Your task to perform on an android device: open chrome and create a bookmark for the current page Image 0: 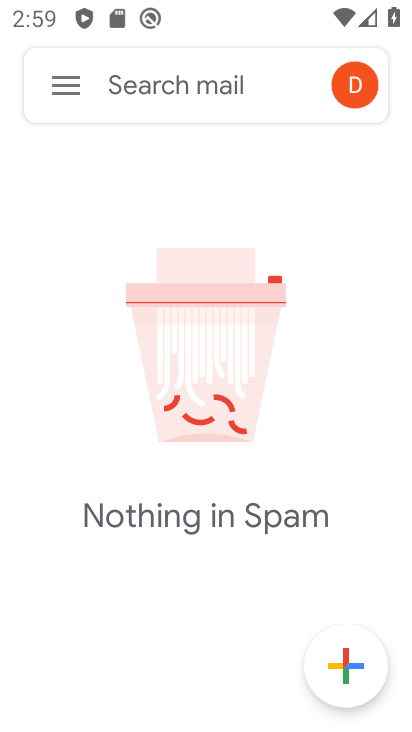
Step 0: press back button
Your task to perform on an android device: open chrome and create a bookmark for the current page Image 1: 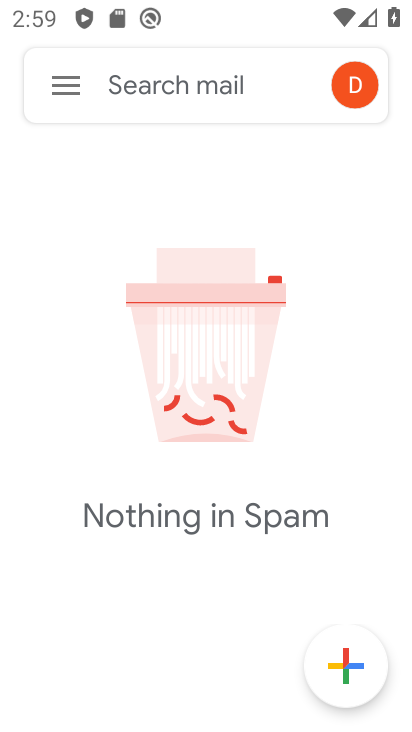
Step 1: press back button
Your task to perform on an android device: open chrome and create a bookmark for the current page Image 2: 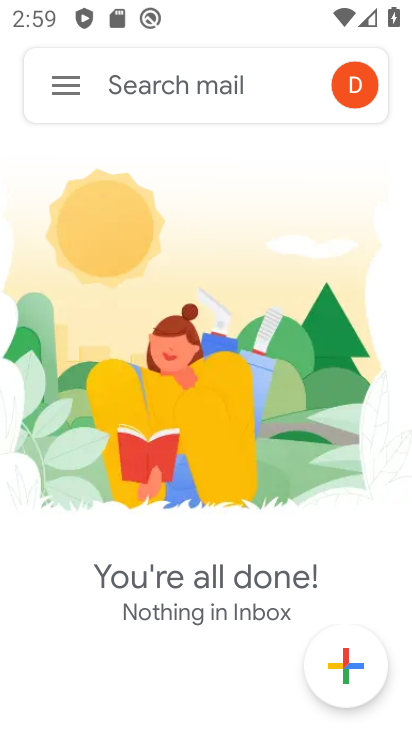
Step 2: press back button
Your task to perform on an android device: open chrome and create a bookmark for the current page Image 3: 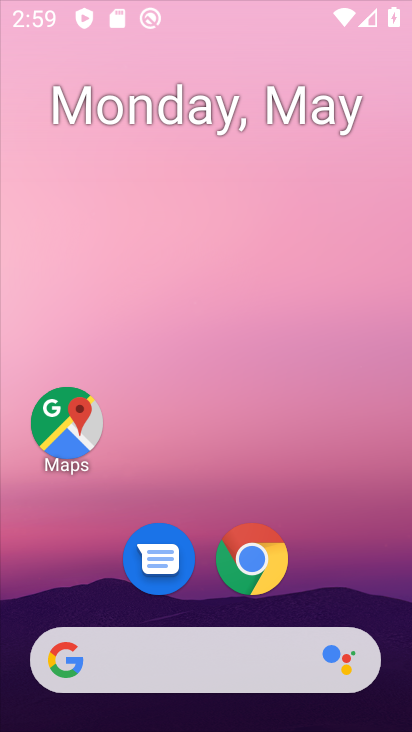
Step 3: press back button
Your task to perform on an android device: open chrome and create a bookmark for the current page Image 4: 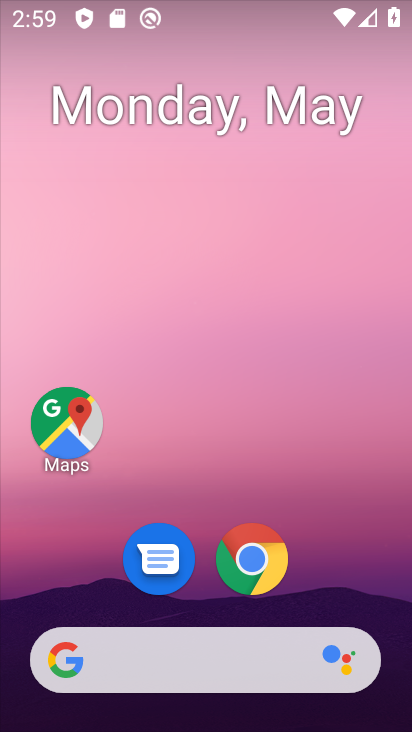
Step 4: drag from (336, 551) to (237, 124)
Your task to perform on an android device: open chrome and create a bookmark for the current page Image 5: 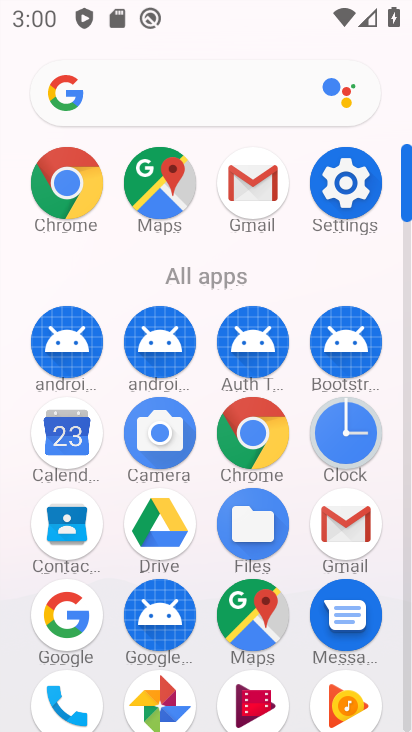
Step 5: click (75, 178)
Your task to perform on an android device: open chrome and create a bookmark for the current page Image 6: 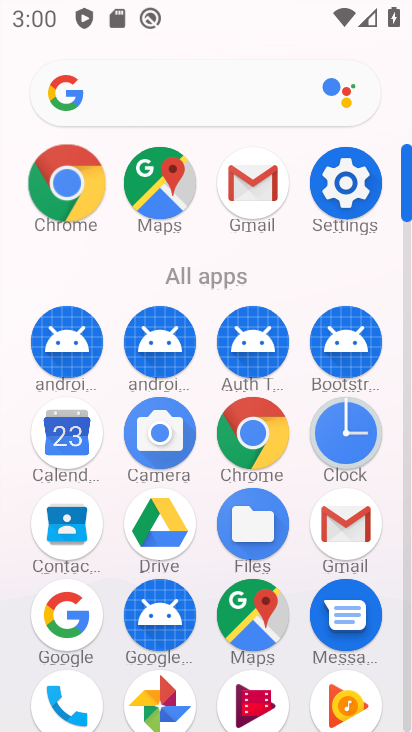
Step 6: click (77, 187)
Your task to perform on an android device: open chrome and create a bookmark for the current page Image 7: 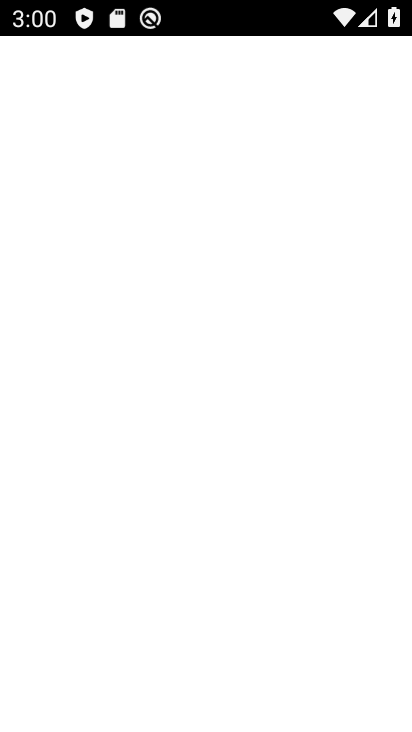
Step 7: click (77, 187)
Your task to perform on an android device: open chrome and create a bookmark for the current page Image 8: 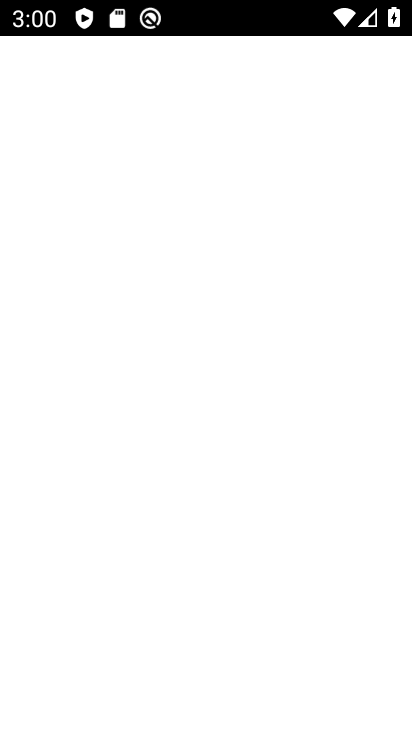
Step 8: click (77, 187)
Your task to perform on an android device: open chrome and create a bookmark for the current page Image 9: 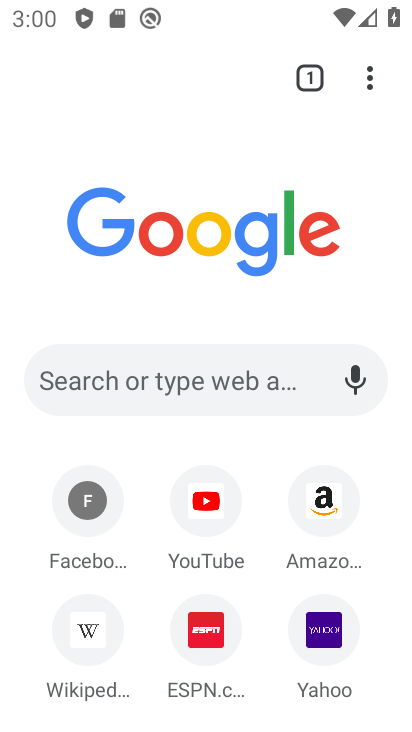
Step 9: click (371, 79)
Your task to perform on an android device: open chrome and create a bookmark for the current page Image 10: 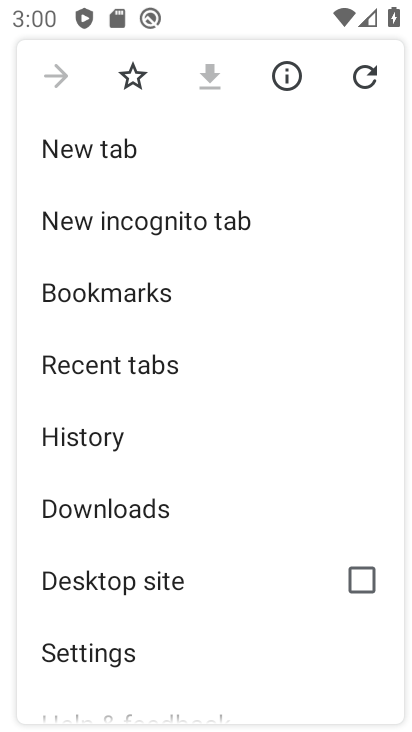
Step 10: click (75, 292)
Your task to perform on an android device: open chrome and create a bookmark for the current page Image 11: 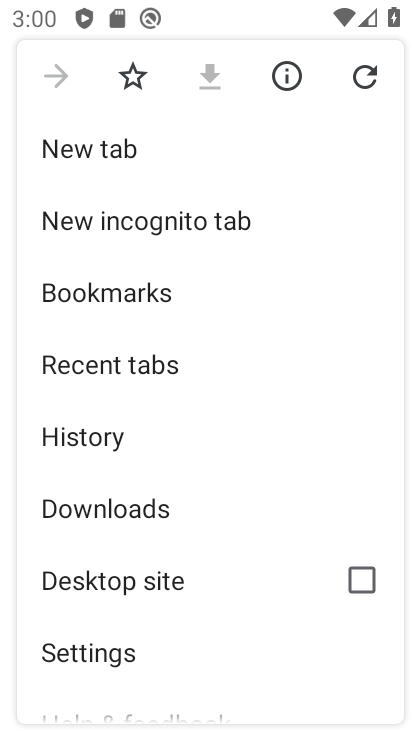
Step 11: click (76, 292)
Your task to perform on an android device: open chrome and create a bookmark for the current page Image 12: 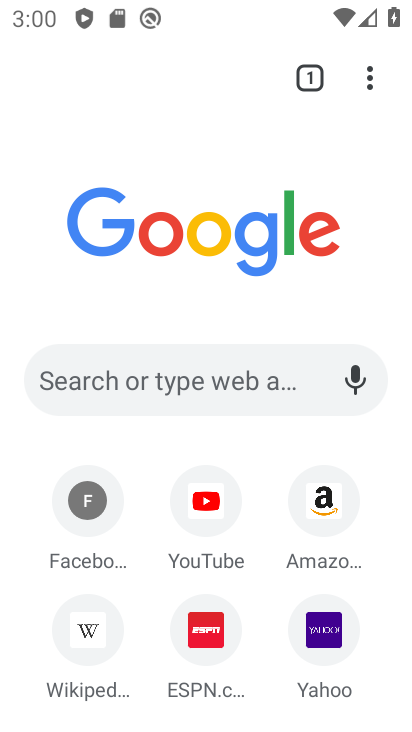
Step 12: click (76, 292)
Your task to perform on an android device: open chrome and create a bookmark for the current page Image 13: 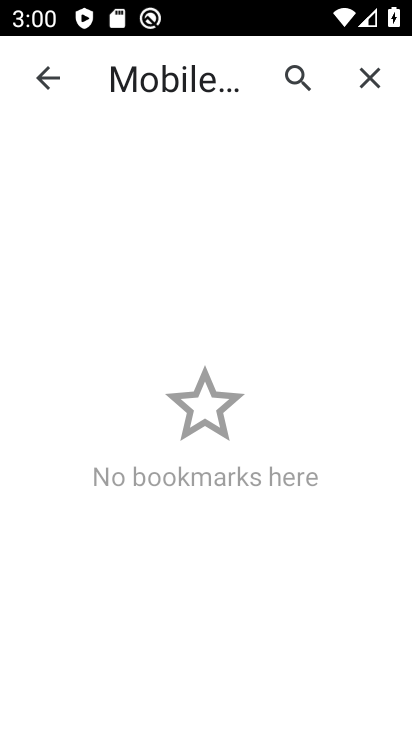
Step 13: click (76, 291)
Your task to perform on an android device: open chrome and create a bookmark for the current page Image 14: 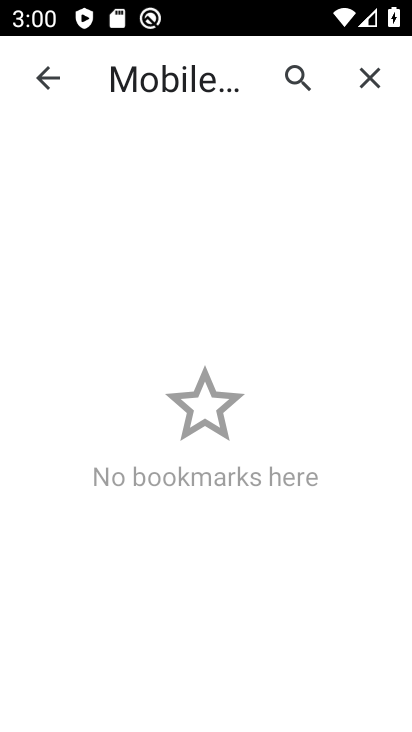
Step 14: click (77, 294)
Your task to perform on an android device: open chrome and create a bookmark for the current page Image 15: 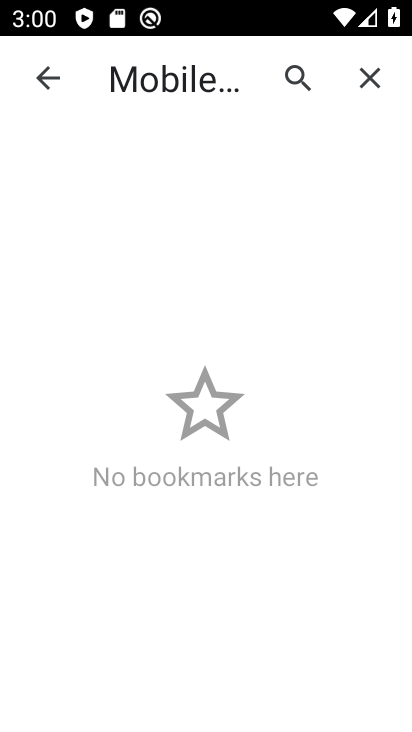
Step 15: task complete